Your task to perform on an android device: Add "jbl charge 4" to the cart on bestbuy, then select checkout. Image 0: 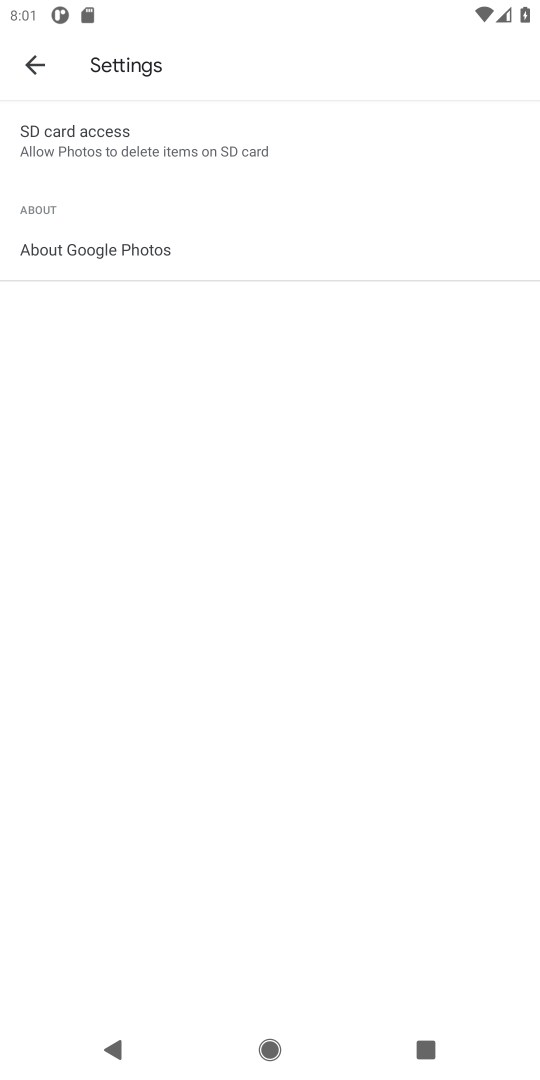
Step 0: press home button
Your task to perform on an android device: Add "jbl charge 4" to the cart on bestbuy, then select checkout. Image 1: 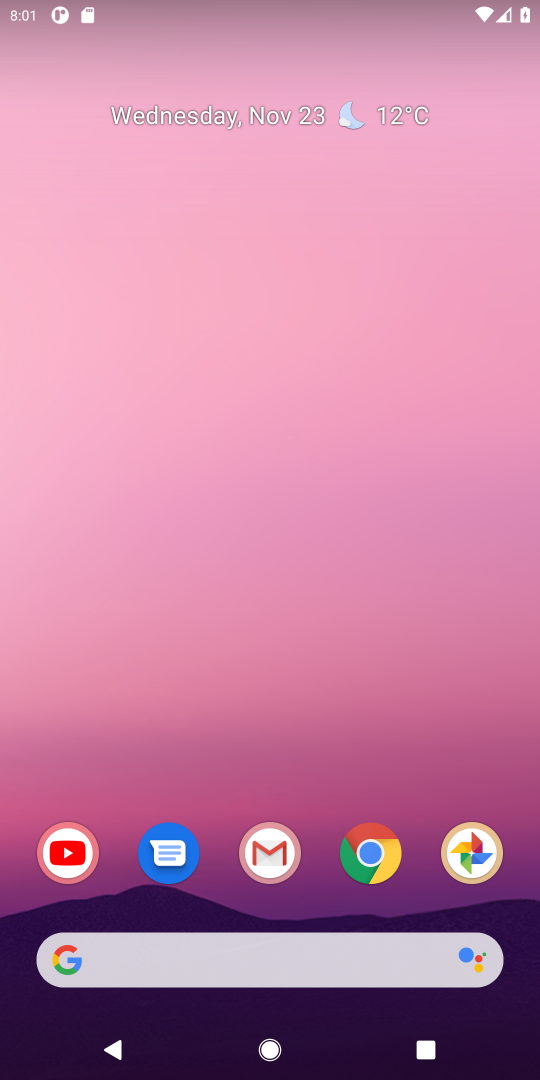
Step 1: click (375, 853)
Your task to perform on an android device: Add "jbl charge 4" to the cart on bestbuy, then select checkout. Image 2: 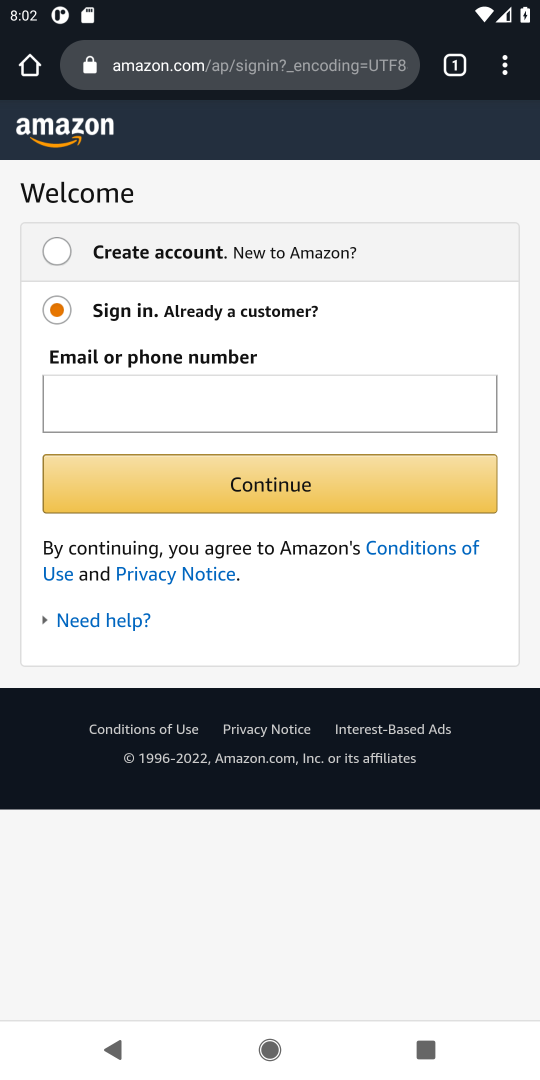
Step 2: click (219, 72)
Your task to perform on an android device: Add "jbl charge 4" to the cart on bestbuy, then select checkout. Image 3: 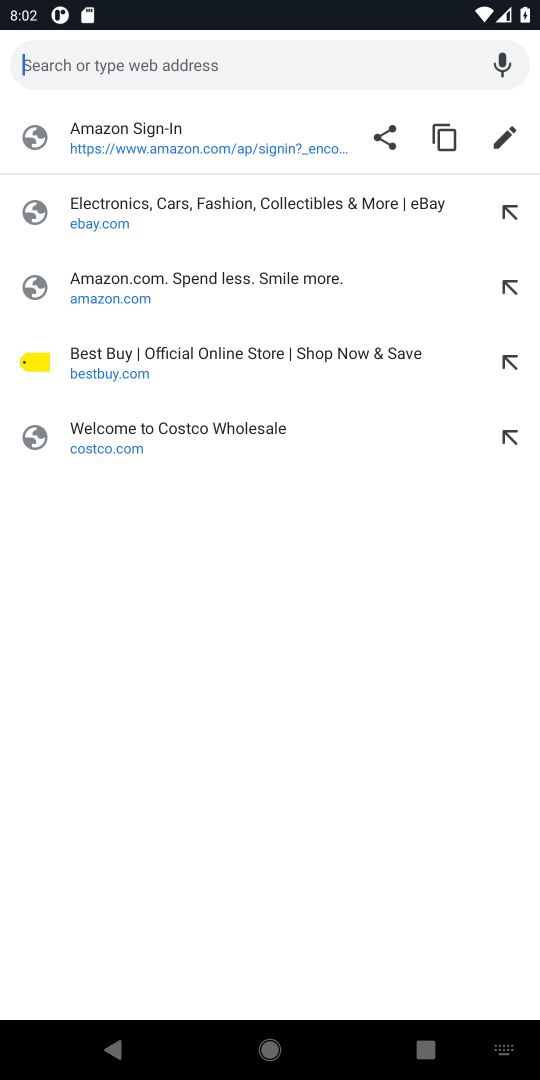
Step 3: click (91, 355)
Your task to perform on an android device: Add "jbl charge 4" to the cart on bestbuy, then select checkout. Image 4: 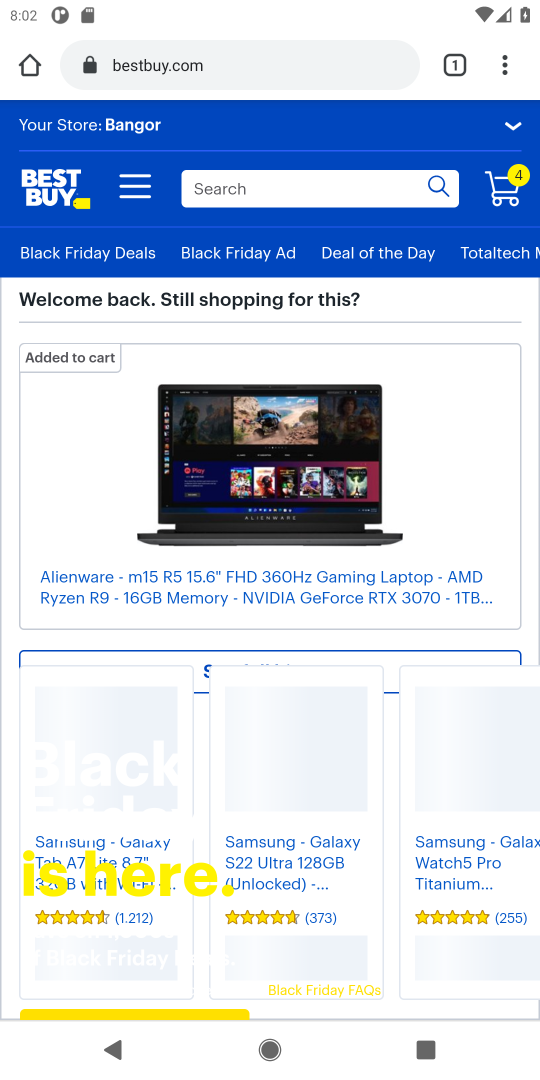
Step 4: click (296, 197)
Your task to perform on an android device: Add "jbl charge 4" to the cart on bestbuy, then select checkout. Image 5: 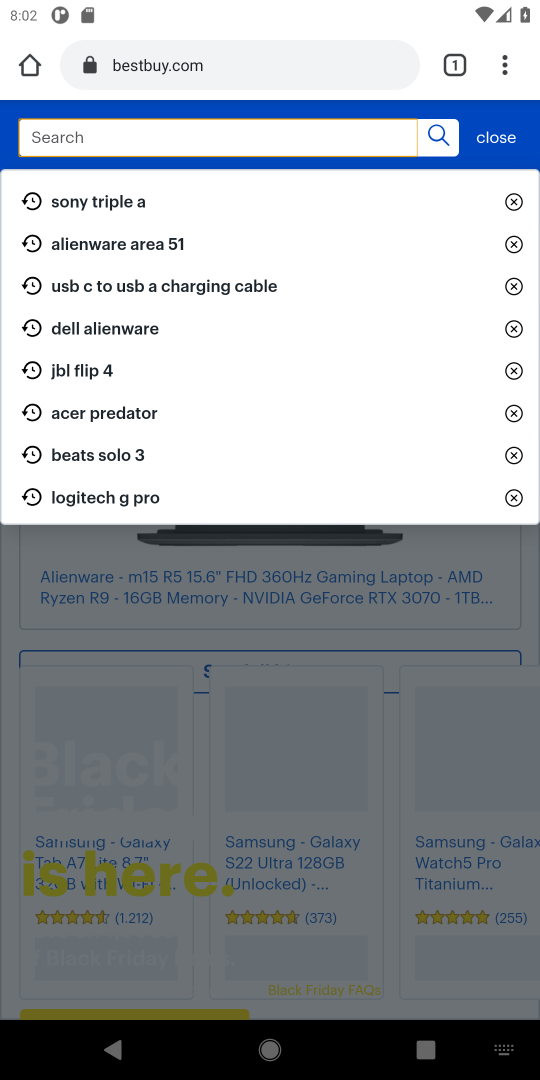
Step 5: type "jbl charge 4"
Your task to perform on an android device: Add "jbl charge 4" to the cart on bestbuy, then select checkout. Image 6: 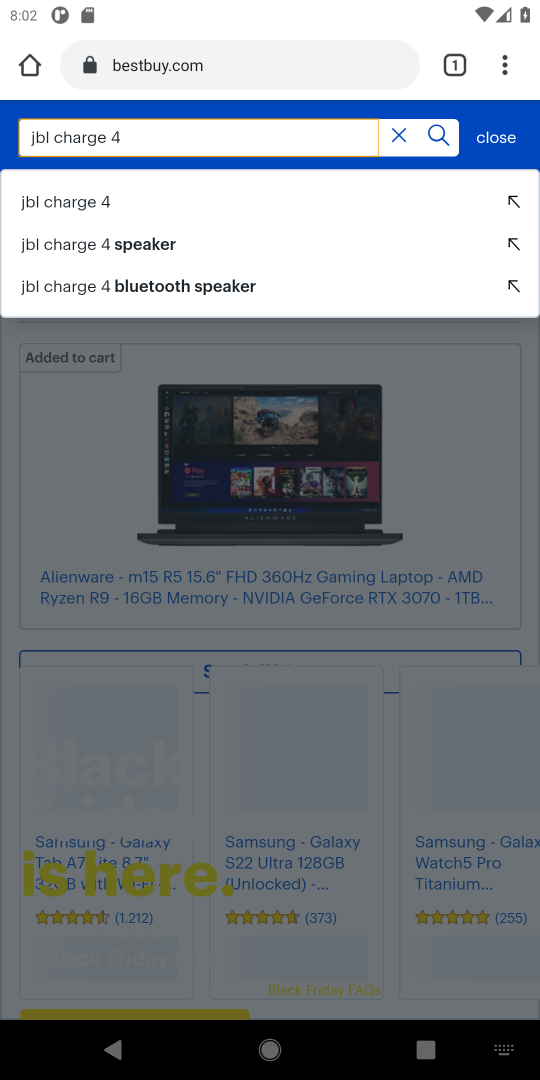
Step 6: click (80, 206)
Your task to perform on an android device: Add "jbl charge 4" to the cart on bestbuy, then select checkout. Image 7: 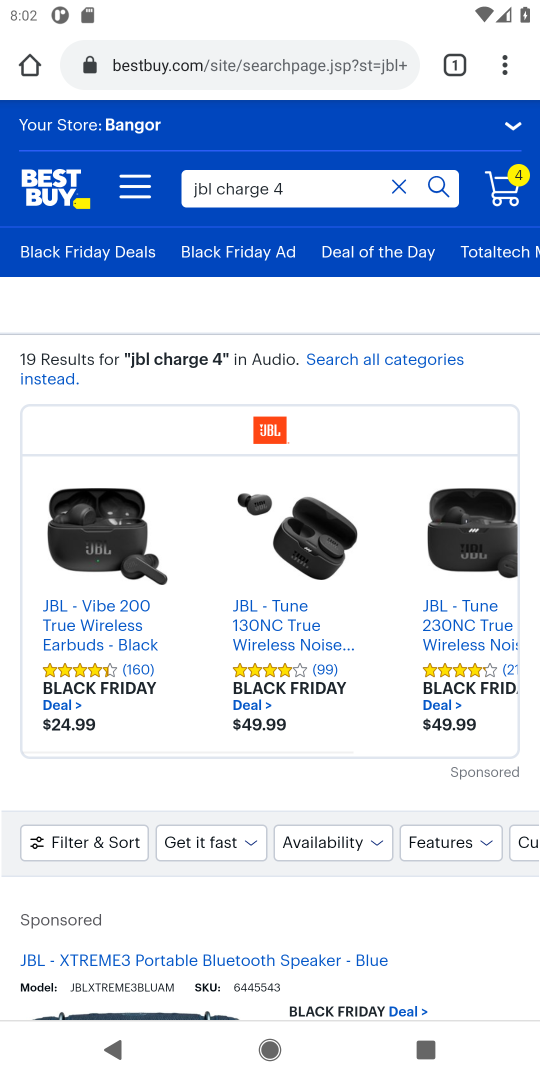
Step 7: task complete